Your task to perform on an android device: see tabs open on other devices in the chrome app Image 0: 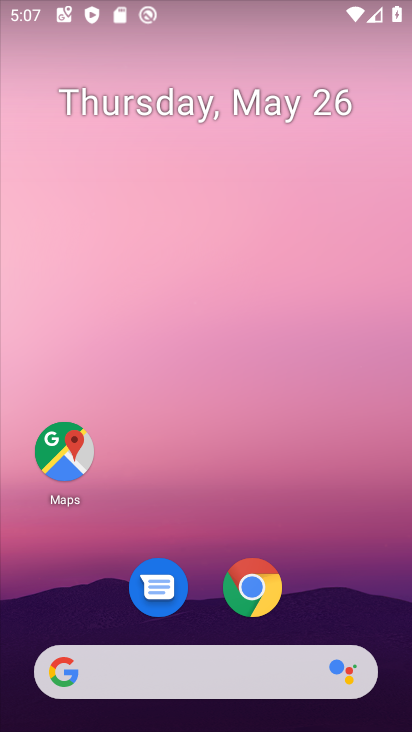
Step 0: click (255, 585)
Your task to perform on an android device: see tabs open on other devices in the chrome app Image 1: 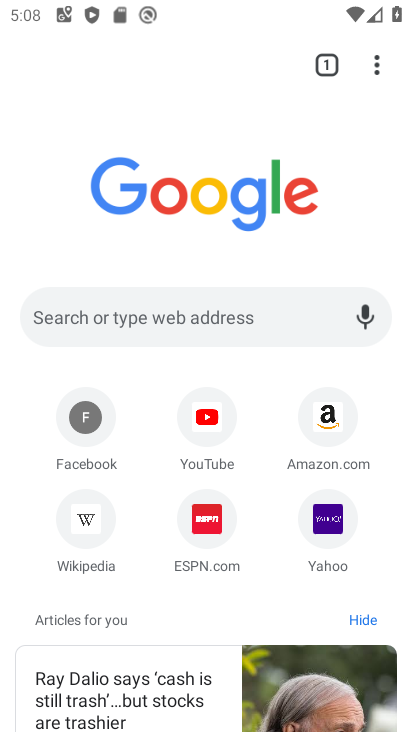
Step 1: click (378, 62)
Your task to perform on an android device: see tabs open on other devices in the chrome app Image 2: 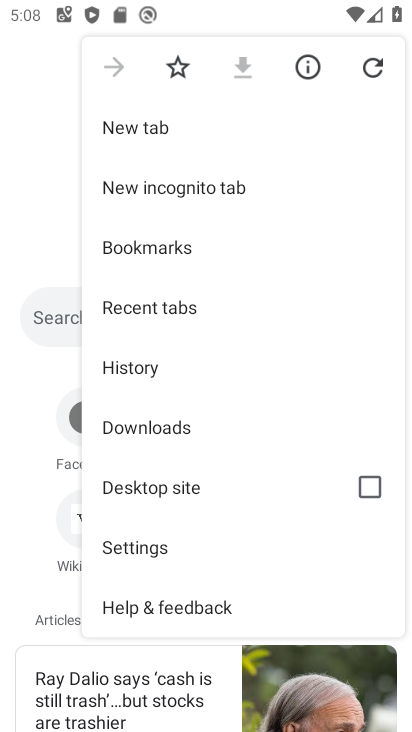
Step 2: click (180, 310)
Your task to perform on an android device: see tabs open on other devices in the chrome app Image 3: 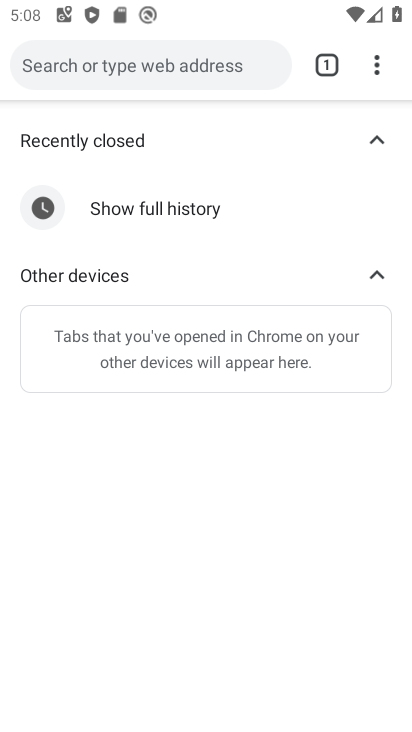
Step 3: task complete